Your task to perform on an android device: refresh tabs in the chrome app Image 0: 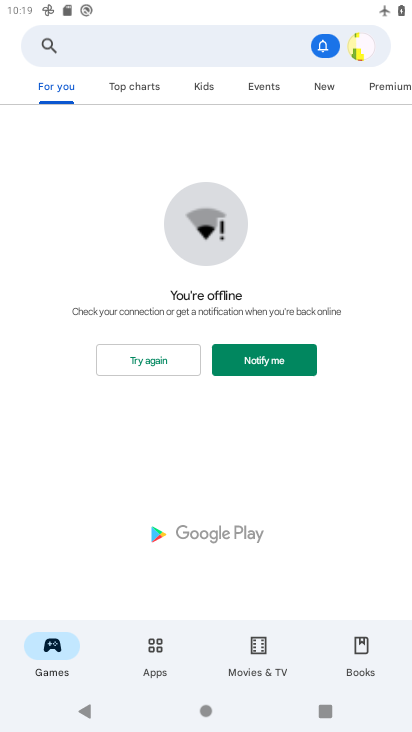
Step 0: press back button
Your task to perform on an android device: refresh tabs in the chrome app Image 1: 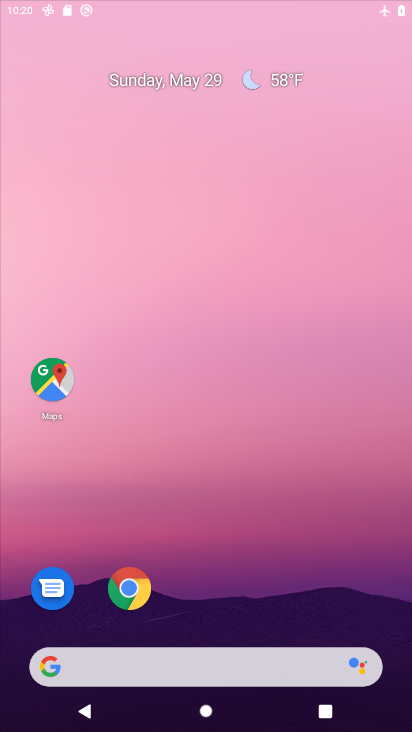
Step 1: press home button
Your task to perform on an android device: refresh tabs in the chrome app Image 2: 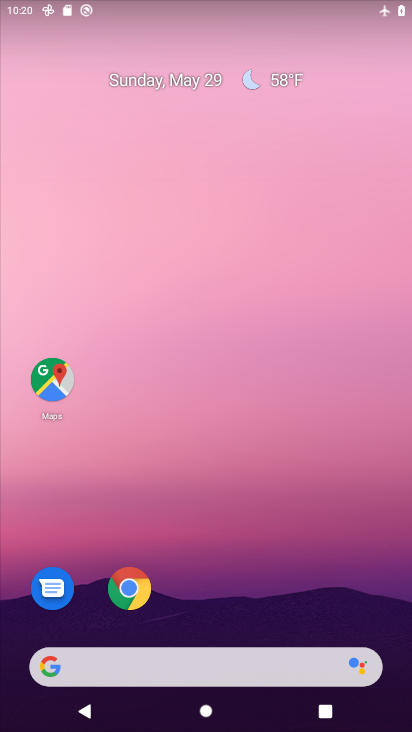
Step 2: drag from (262, 612) to (182, 73)
Your task to perform on an android device: refresh tabs in the chrome app Image 3: 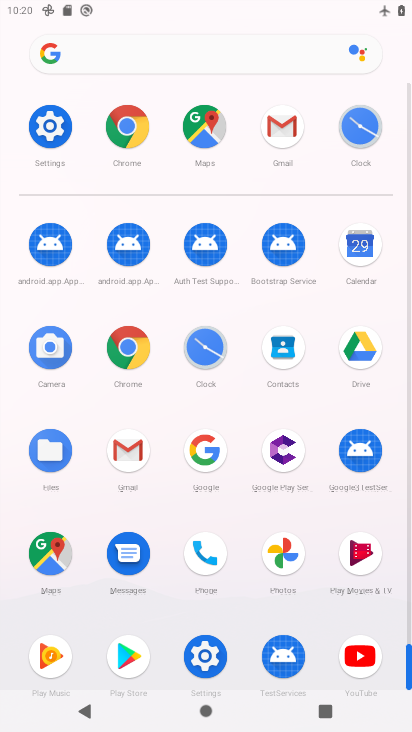
Step 3: click (132, 118)
Your task to perform on an android device: refresh tabs in the chrome app Image 4: 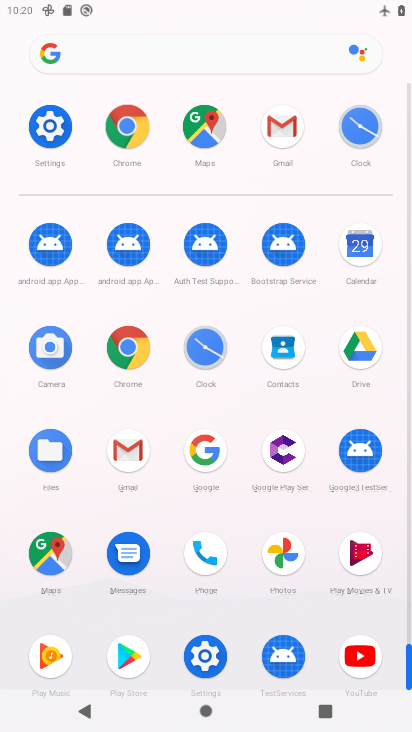
Step 4: click (132, 118)
Your task to perform on an android device: refresh tabs in the chrome app Image 5: 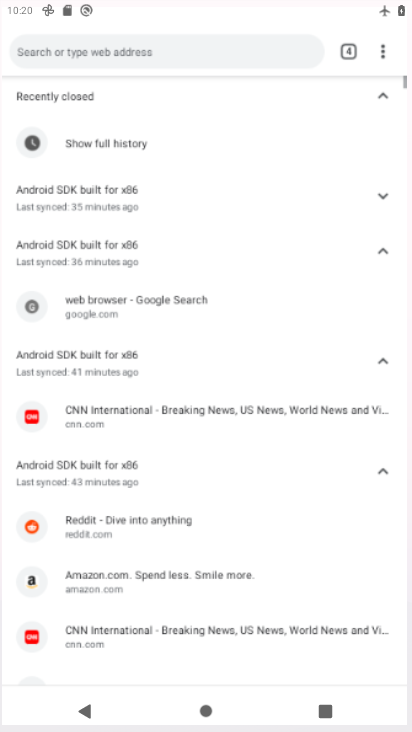
Step 5: click (132, 118)
Your task to perform on an android device: refresh tabs in the chrome app Image 6: 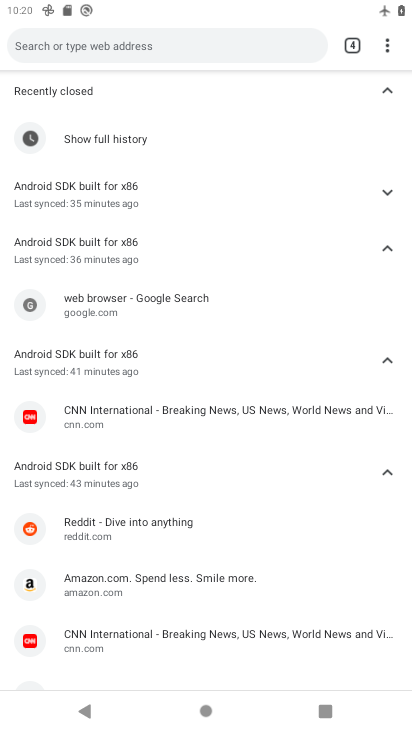
Step 6: click (384, 47)
Your task to perform on an android device: refresh tabs in the chrome app Image 7: 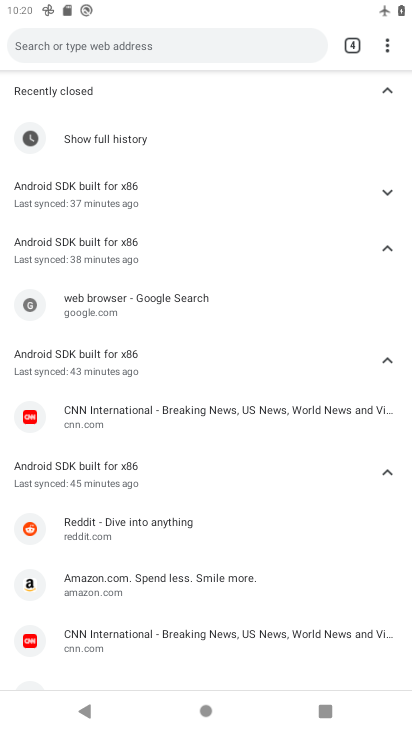
Step 7: click (384, 48)
Your task to perform on an android device: refresh tabs in the chrome app Image 8: 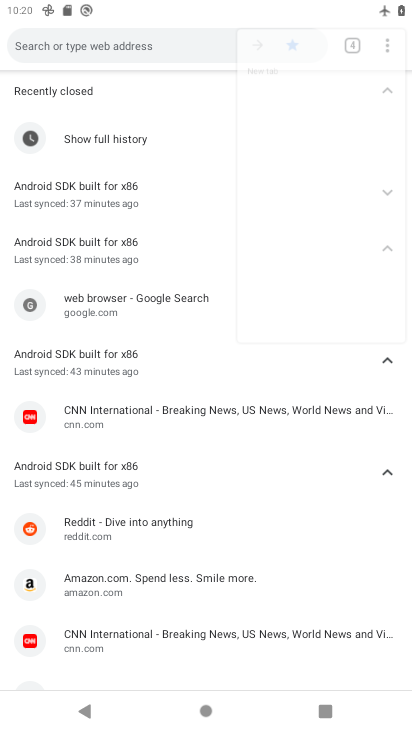
Step 8: click (385, 47)
Your task to perform on an android device: refresh tabs in the chrome app Image 9: 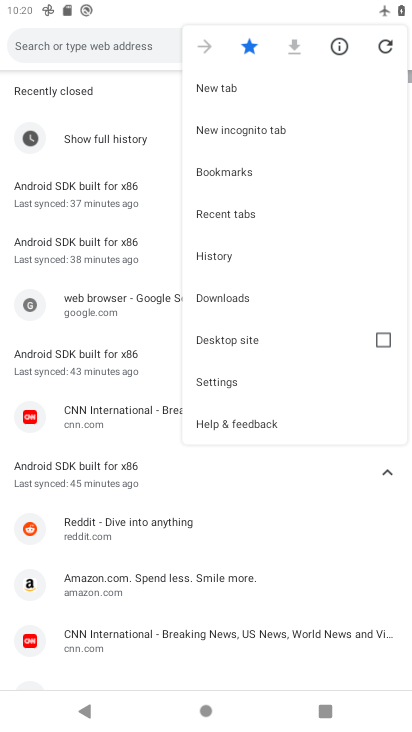
Step 9: click (385, 47)
Your task to perform on an android device: refresh tabs in the chrome app Image 10: 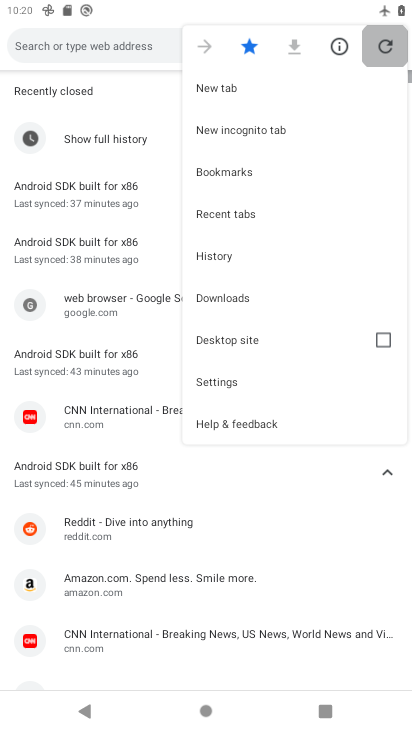
Step 10: click (385, 47)
Your task to perform on an android device: refresh tabs in the chrome app Image 11: 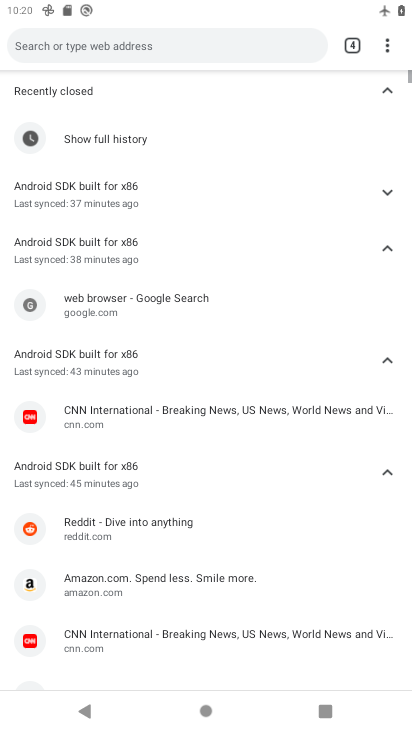
Step 11: click (385, 47)
Your task to perform on an android device: refresh tabs in the chrome app Image 12: 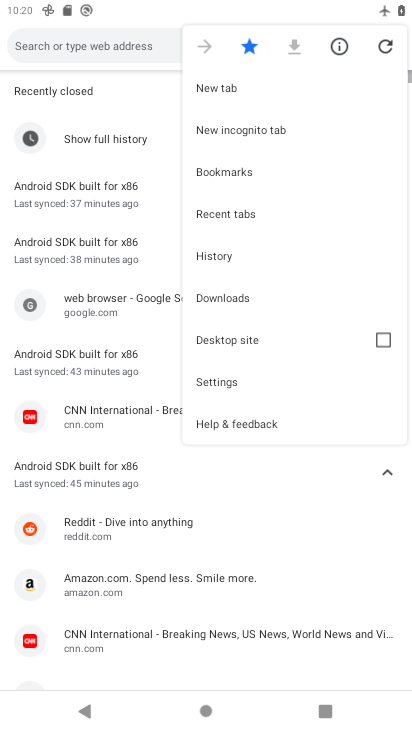
Step 12: task complete